Your task to perform on an android device: toggle javascript in the chrome app Image 0: 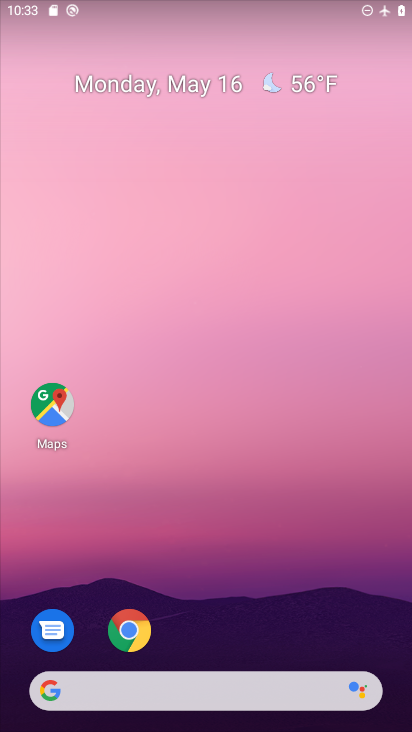
Step 0: click (131, 628)
Your task to perform on an android device: toggle javascript in the chrome app Image 1: 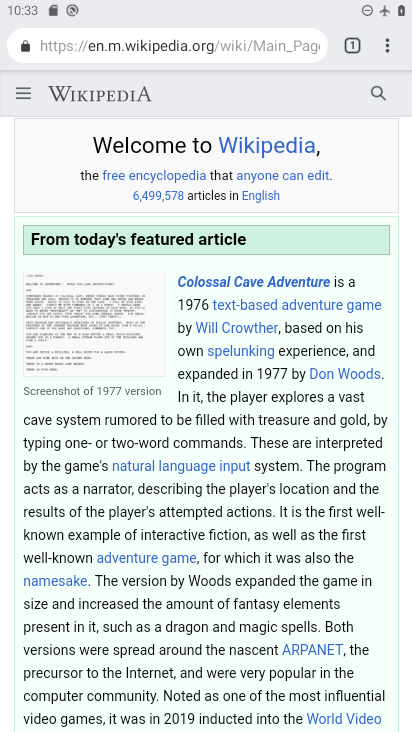
Step 1: click (384, 51)
Your task to perform on an android device: toggle javascript in the chrome app Image 2: 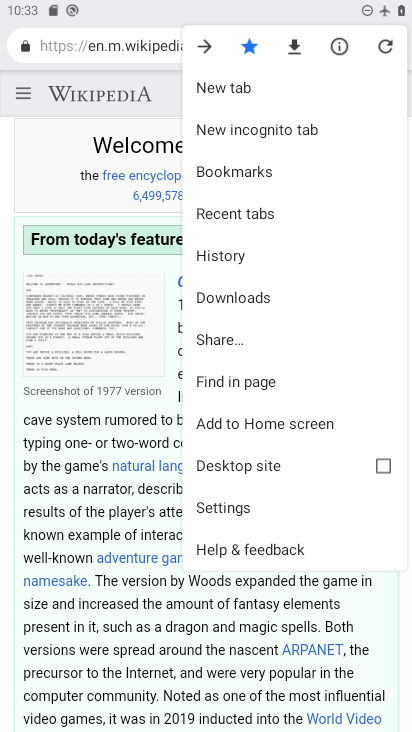
Step 2: click (235, 508)
Your task to perform on an android device: toggle javascript in the chrome app Image 3: 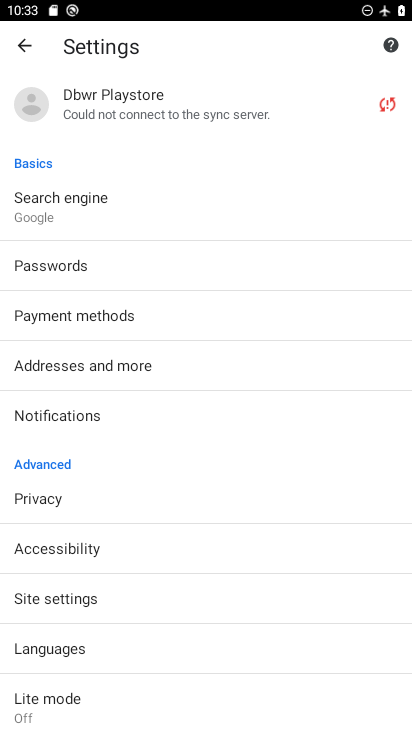
Step 3: click (218, 598)
Your task to perform on an android device: toggle javascript in the chrome app Image 4: 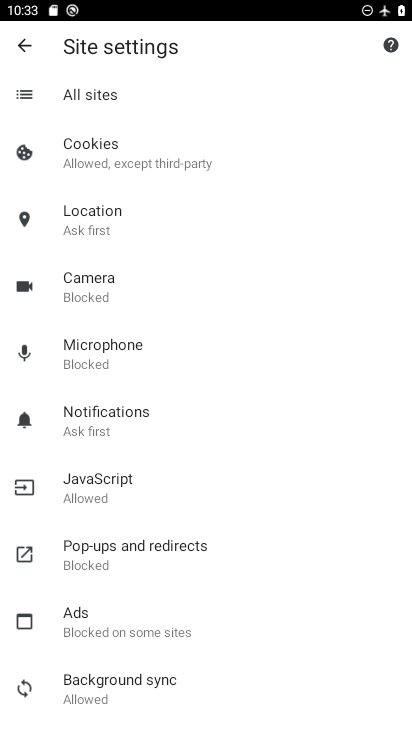
Step 4: click (216, 480)
Your task to perform on an android device: toggle javascript in the chrome app Image 5: 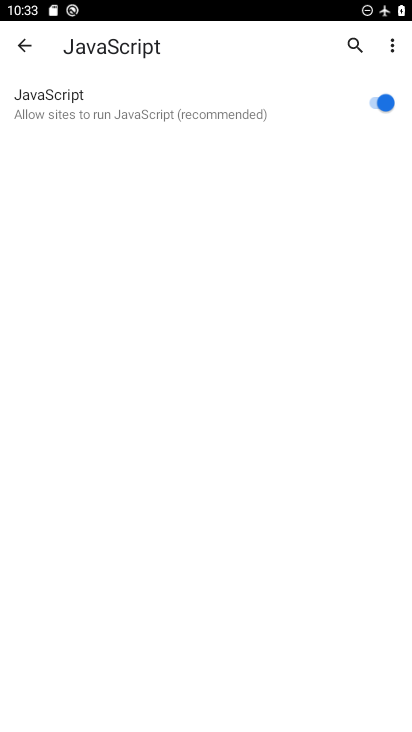
Step 5: click (379, 96)
Your task to perform on an android device: toggle javascript in the chrome app Image 6: 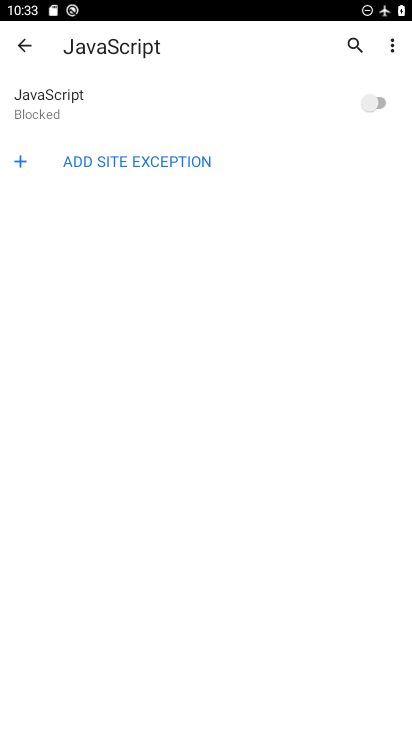
Step 6: task complete